Your task to perform on an android device: check out phone information Image 0: 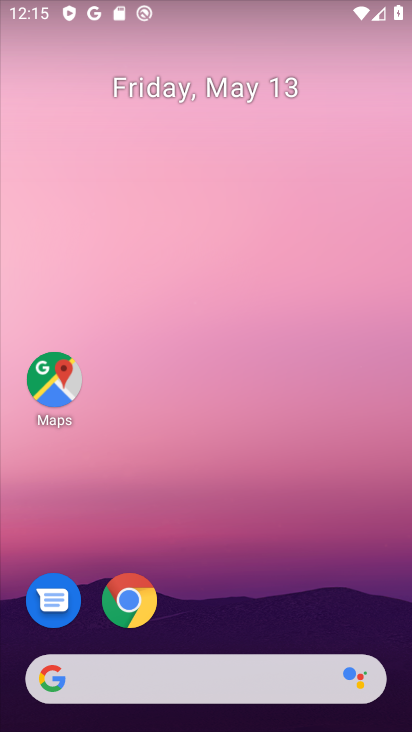
Step 0: drag from (204, 622) to (224, 214)
Your task to perform on an android device: check out phone information Image 1: 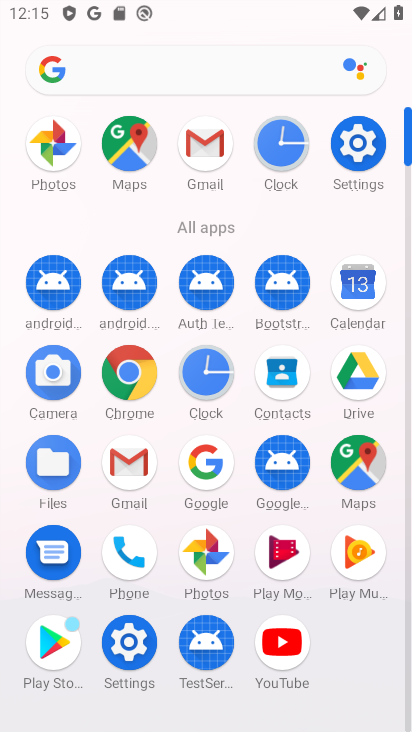
Step 1: click (125, 643)
Your task to perform on an android device: check out phone information Image 2: 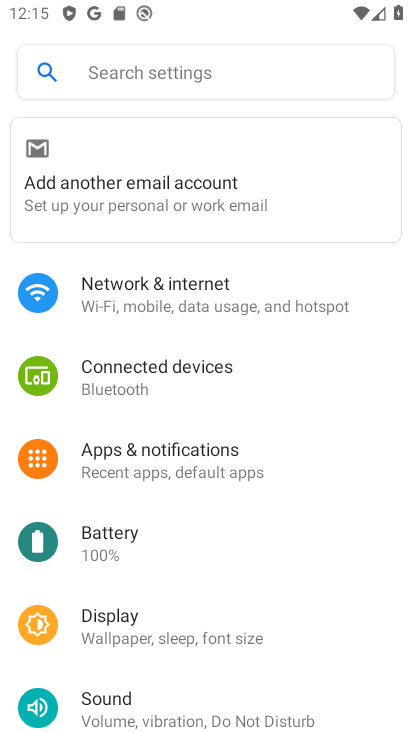
Step 2: drag from (192, 694) to (211, 157)
Your task to perform on an android device: check out phone information Image 3: 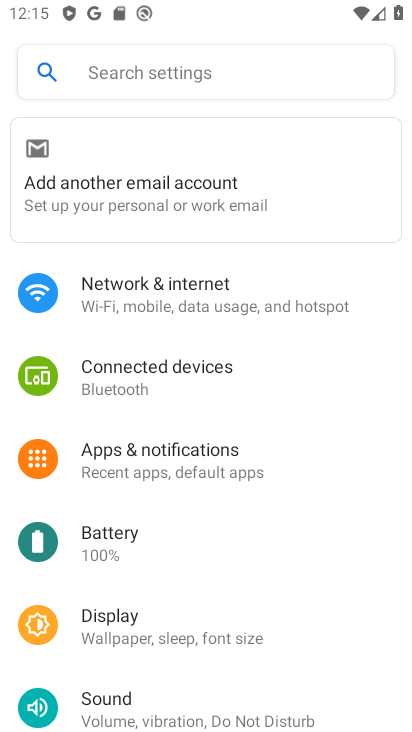
Step 3: drag from (213, 621) to (275, 155)
Your task to perform on an android device: check out phone information Image 4: 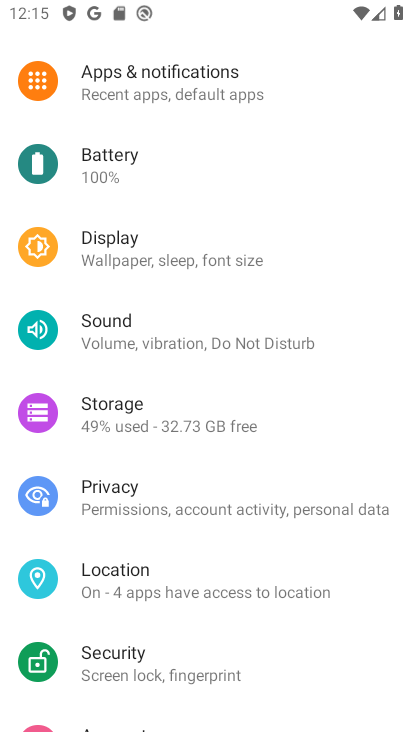
Step 4: drag from (213, 587) to (228, 256)
Your task to perform on an android device: check out phone information Image 5: 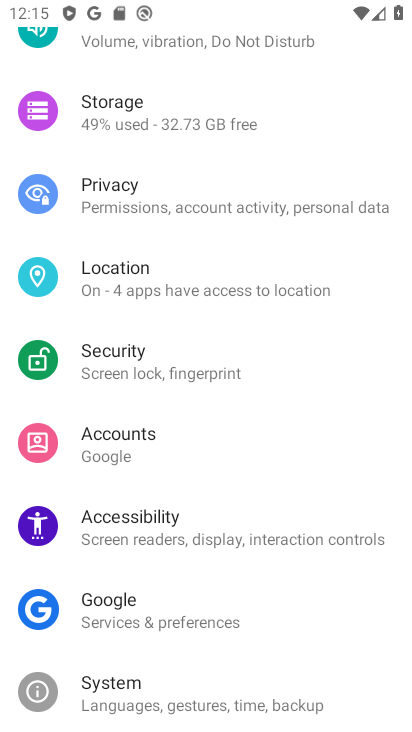
Step 5: drag from (203, 634) to (258, 54)
Your task to perform on an android device: check out phone information Image 6: 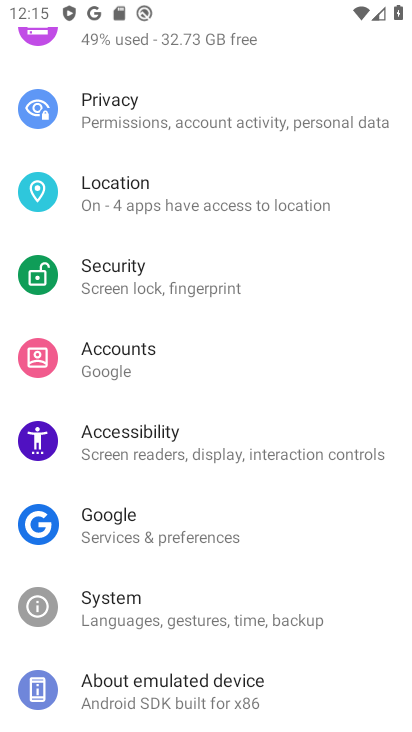
Step 6: click (170, 675)
Your task to perform on an android device: check out phone information Image 7: 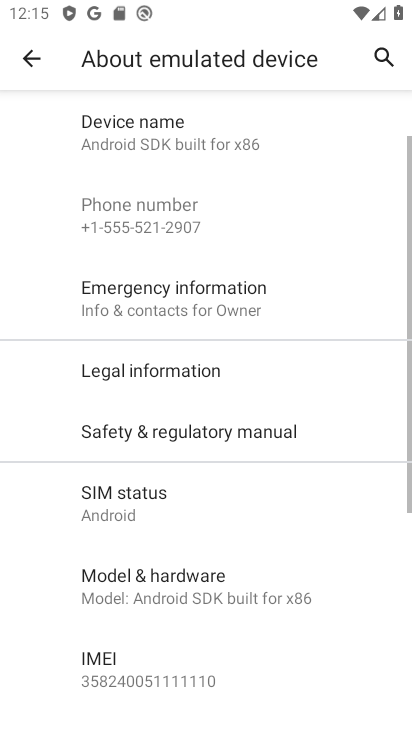
Step 7: task complete